Your task to perform on an android device: toggle data saver in the chrome app Image 0: 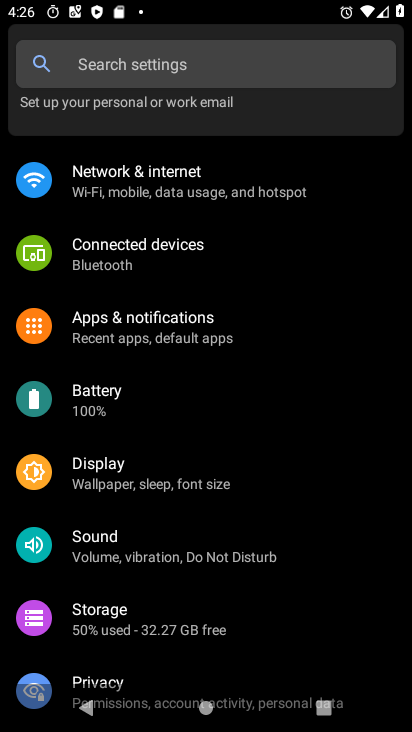
Step 0: press home button
Your task to perform on an android device: toggle data saver in the chrome app Image 1: 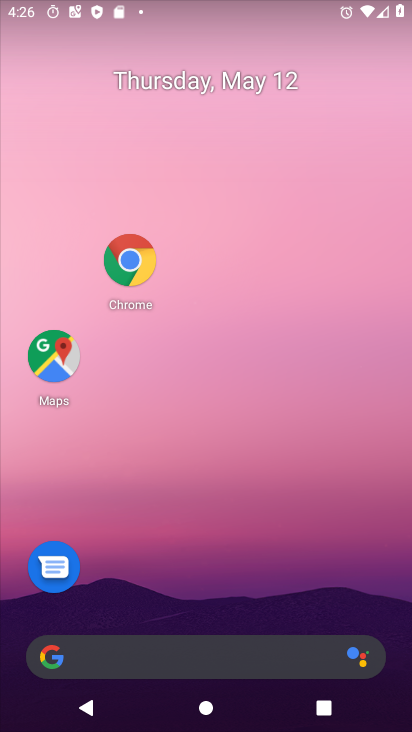
Step 1: click (138, 261)
Your task to perform on an android device: toggle data saver in the chrome app Image 2: 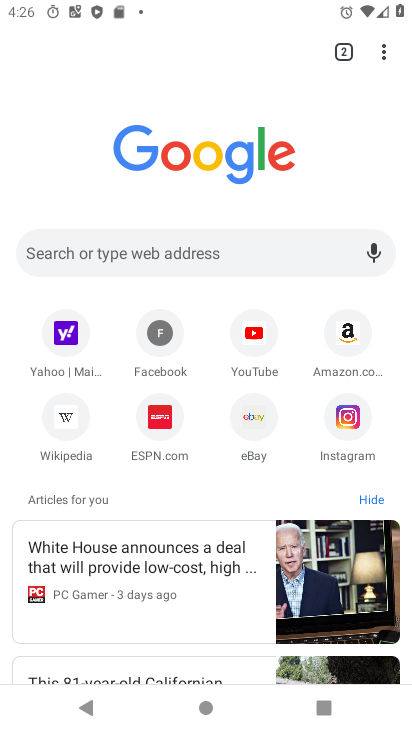
Step 2: click (384, 50)
Your task to perform on an android device: toggle data saver in the chrome app Image 3: 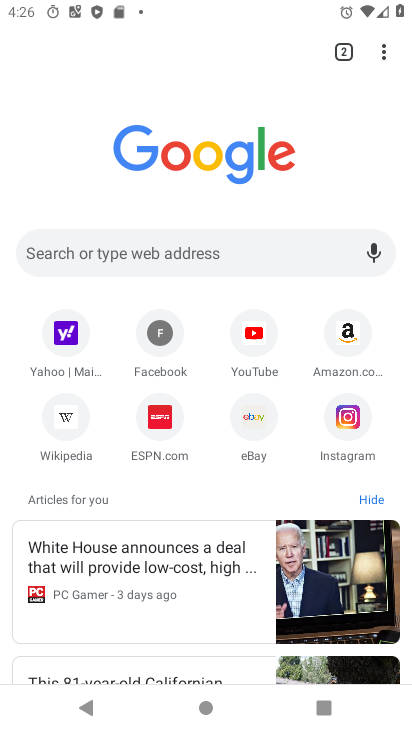
Step 3: click (383, 55)
Your task to perform on an android device: toggle data saver in the chrome app Image 4: 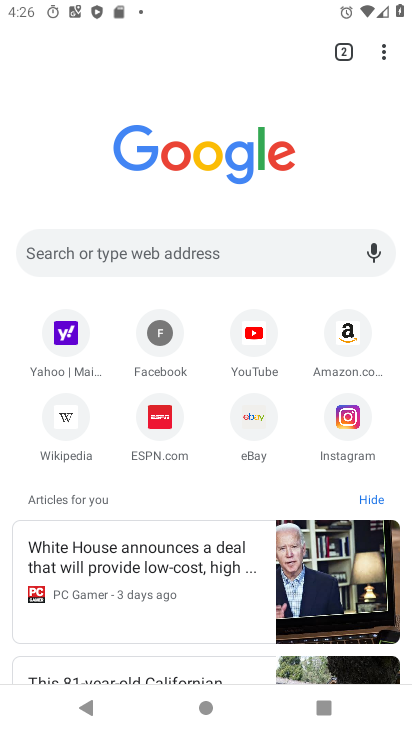
Step 4: click (383, 55)
Your task to perform on an android device: toggle data saver in the chrome app Image 5: 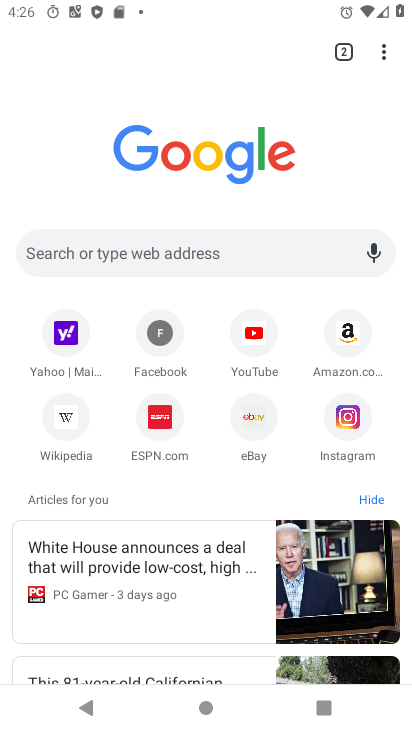
Step 5: click (380, 53)
Your task to perform on an android device: toggle data saver in the chrome app Image 6: 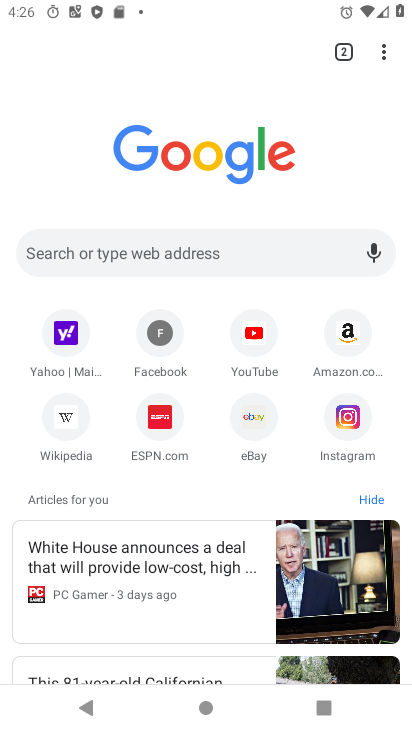
Step 6: click (379, 44)
Your task to perform on an android device: toggle data saver in the chrome app Image 7: 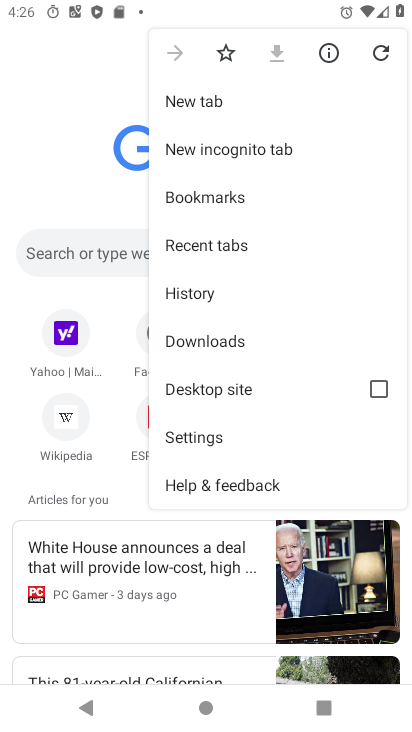
Step 7: click (203, 437)
Your task to perform on an android device: toggle data saver in the chrome app Image 8: 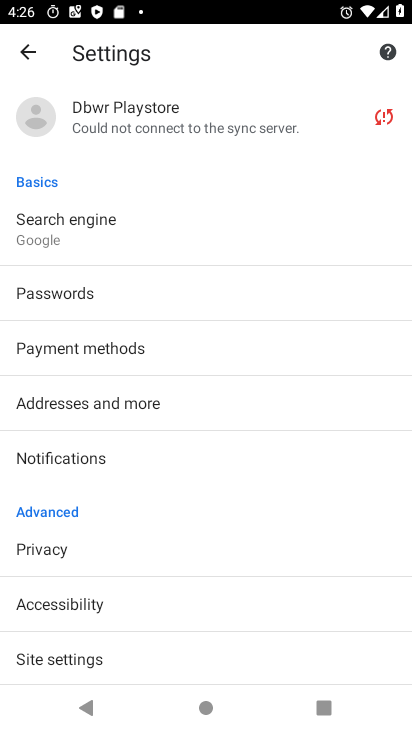
Step 8: drag from (151, 665) to (149, 356)
Your task to perform on an android device: toggle data saver in the chrome app Image 9: 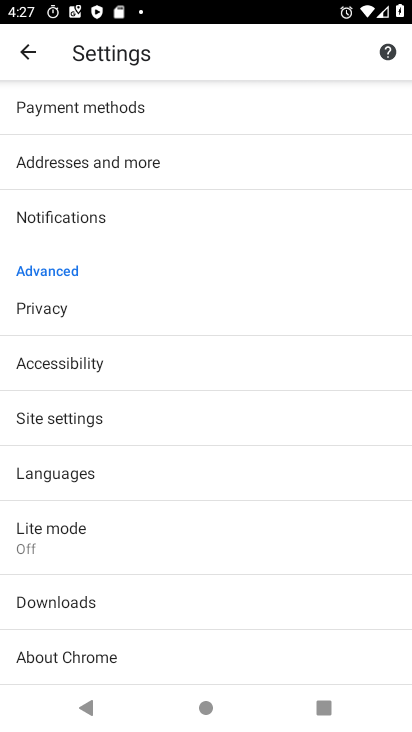
Step 9: click (49, 528)
Your task to perform on an android device: toggle data saver in the chrome app Image 10: 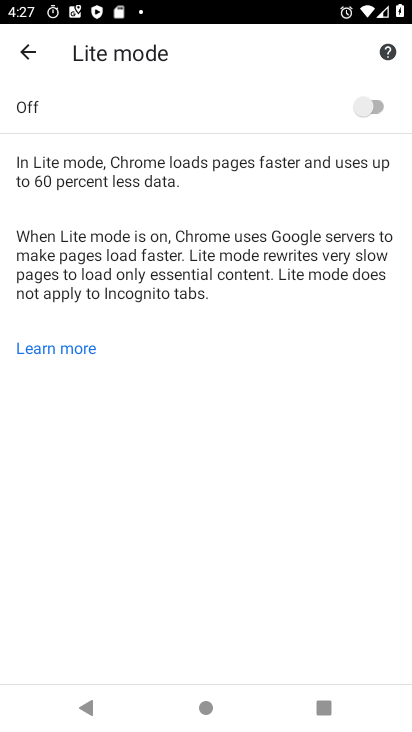
Step 10: click (375, 107)
Your task to perform on an android device: toggle data saver in the chrome app Image 11: 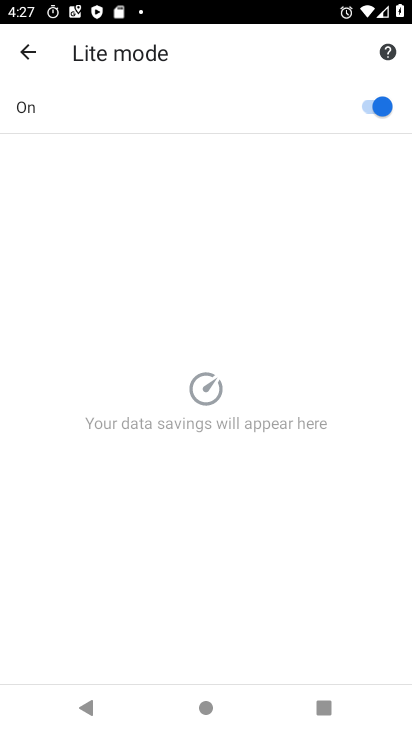
Step 11: task complete